Your task to perform on an android device: Search for "amazon basics triple a" on amazon, select the first entry, and add it to the cart. Image 0: 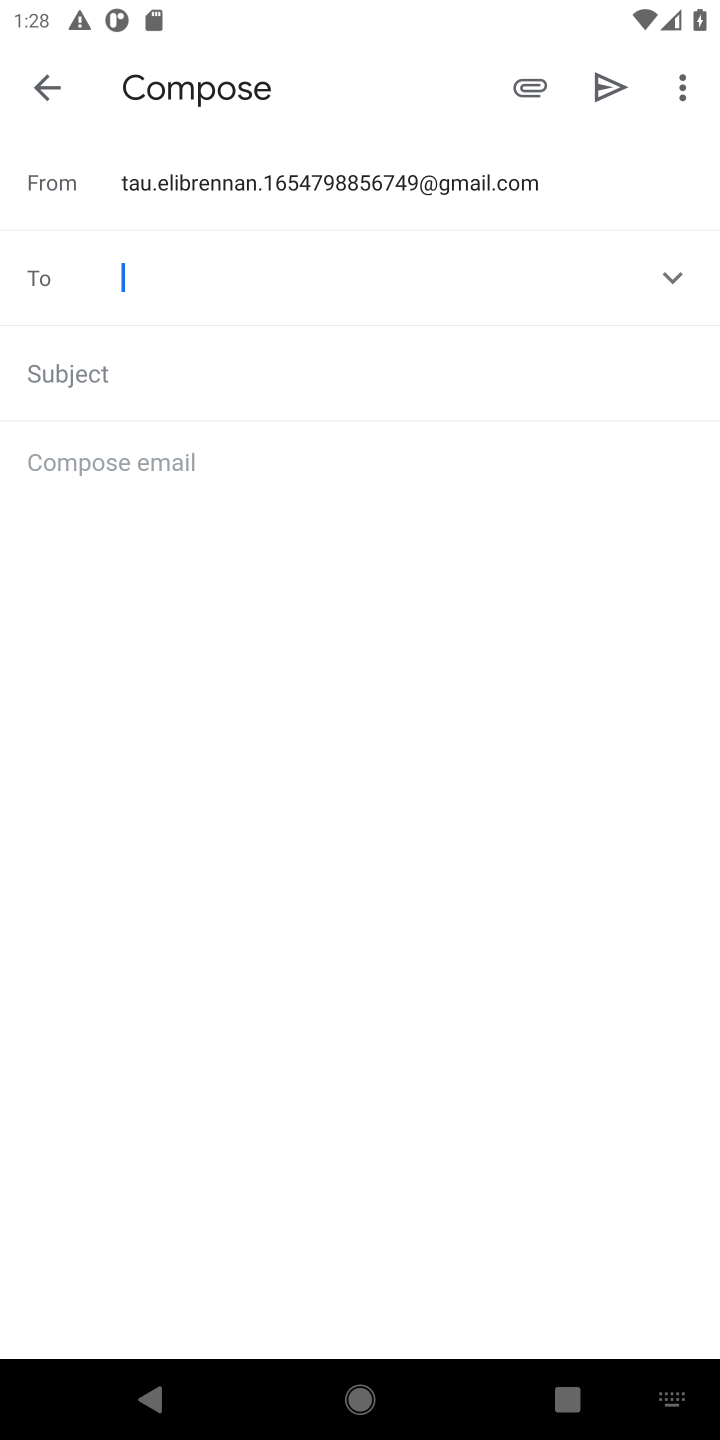
Step 0: press home button
Your task to perform on an android device: Search for "amazon basics triple a" on amazon, select the first entry, and add it to the cart. Image 1: 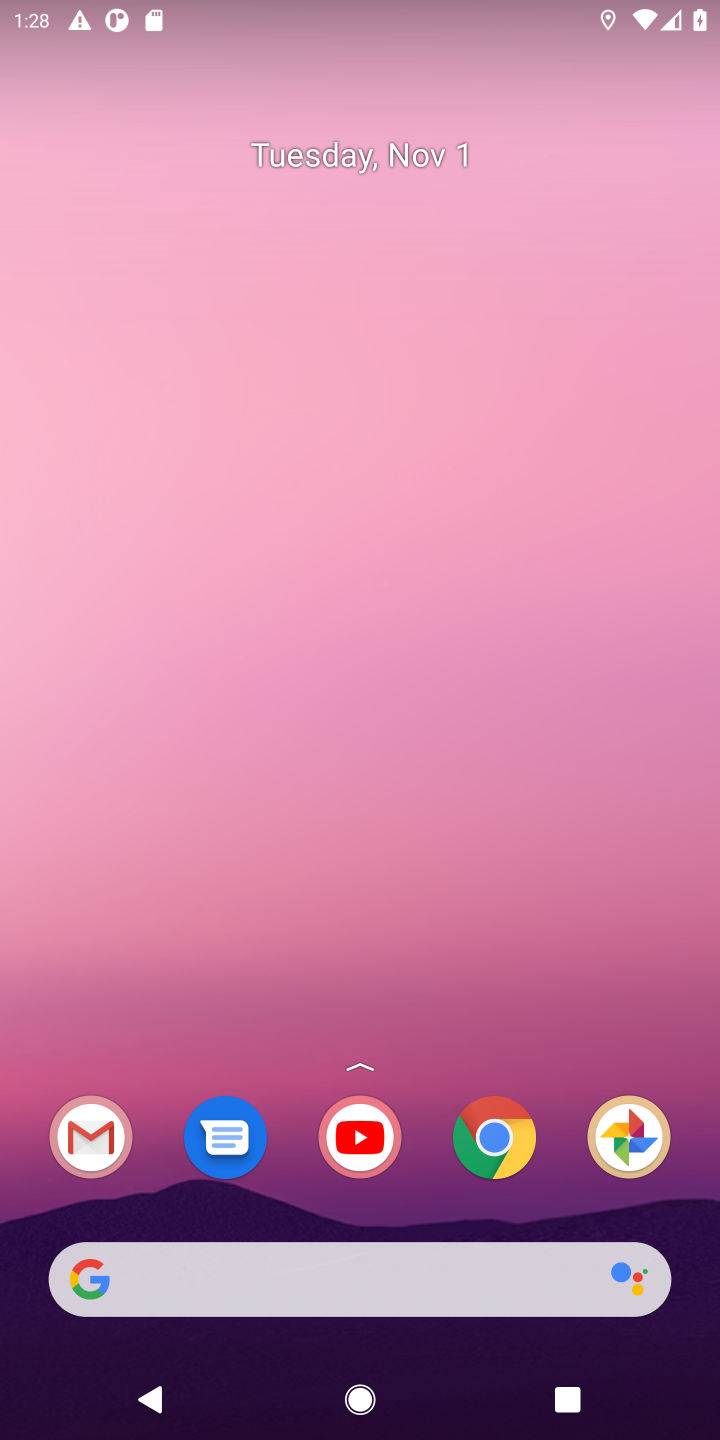
Step 1: drag from (394, 512) to (680, 7)
Your task to perform on an android device: Search for "amazon basics triple a" on amazon, select the first entry, and add it to the cart. Image 2: 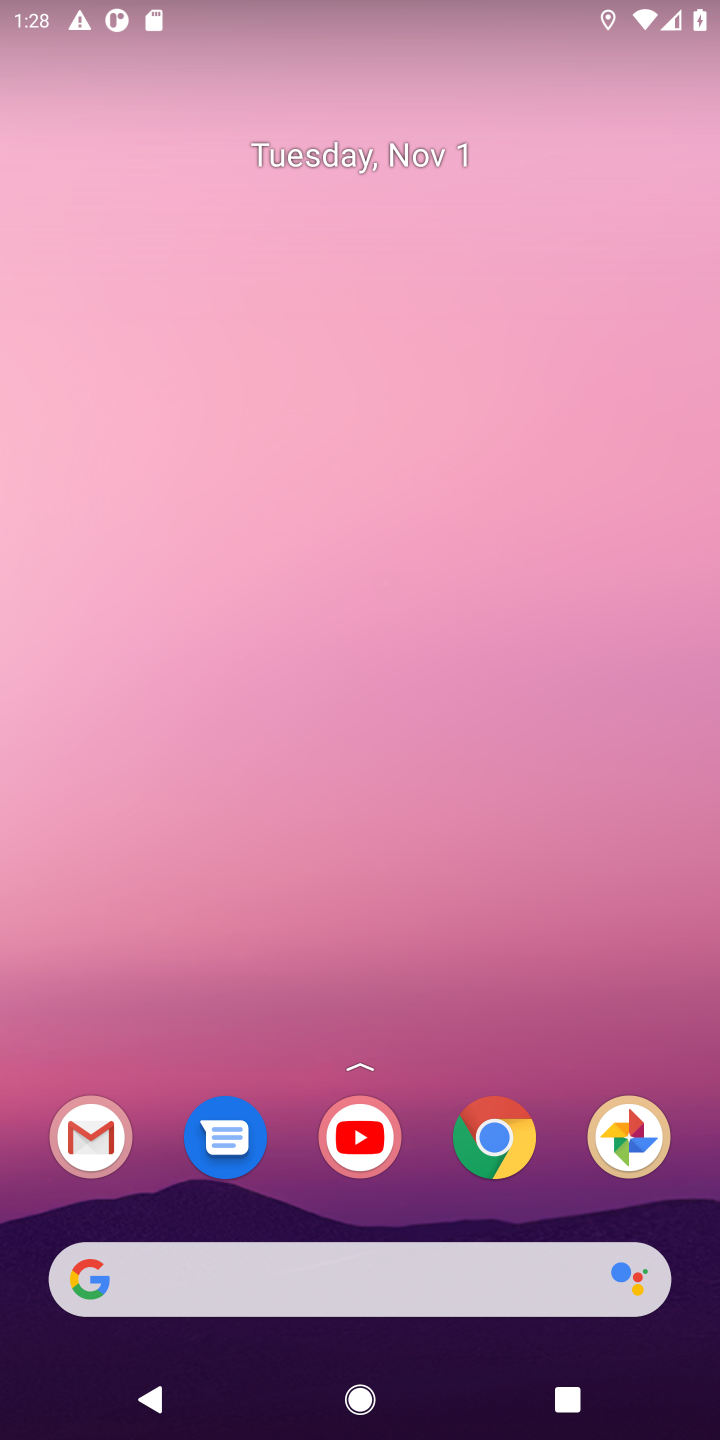
Step 2: drag from (359, 1302) to (381, 124)
Your task to perform on an android device: Search for "amazon basics triple a" on amazon, select the first entry, and add it to the cart. Image 3: 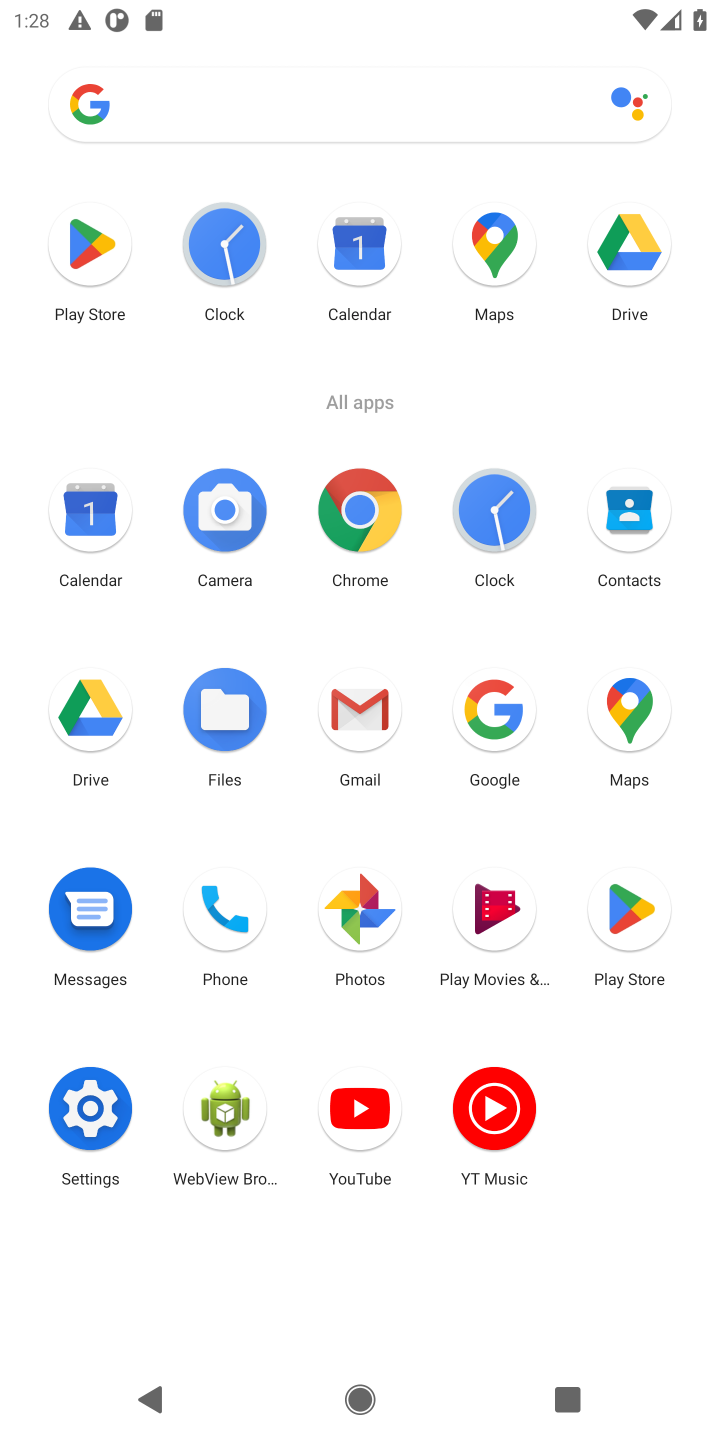
Step 3: click (373, 522)
Your task to perform on an android device: Search for "amazon basics triple a" on amazon, select the first entry, and add it to the cart. Image 4: 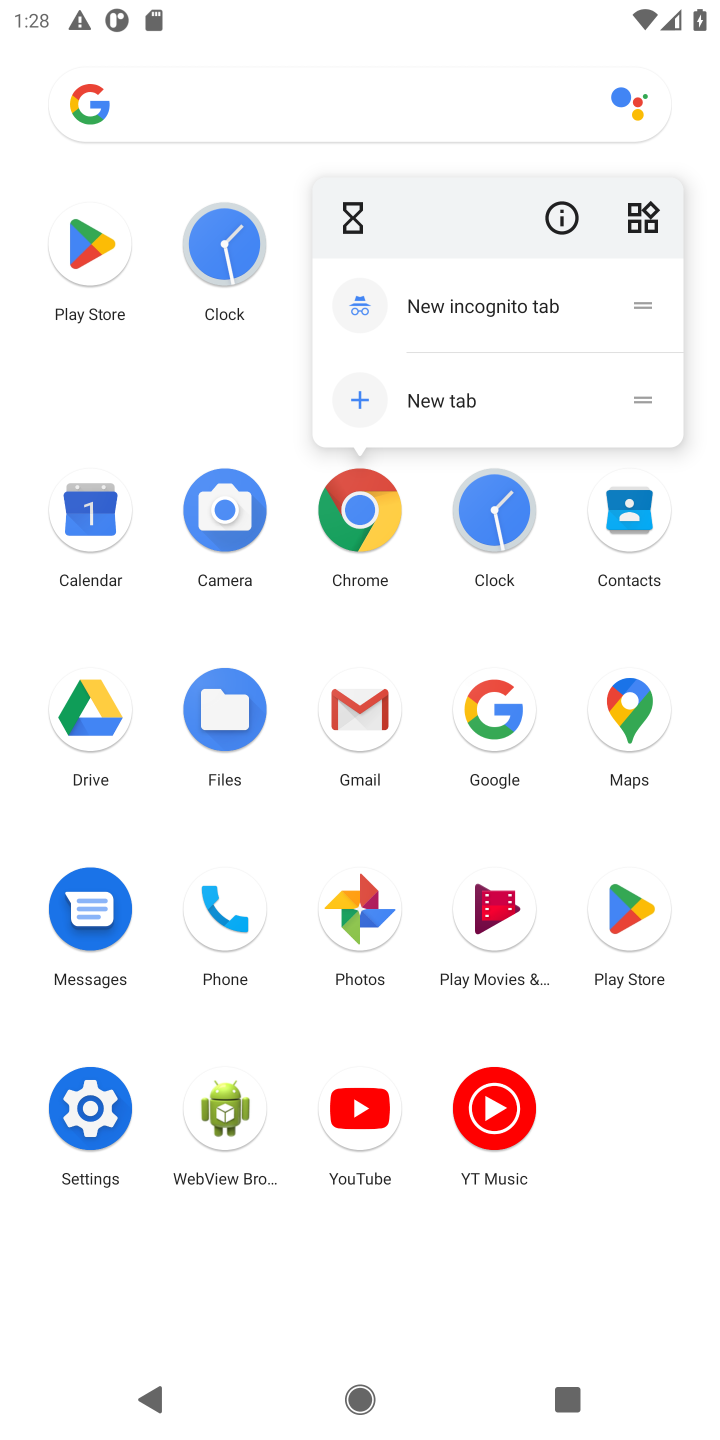
Step 4: click (373, 522)
Your task to perform on an android device: Search for "amazon basics triple a" on amazon, select the first entry, and add it to the cart. Image 5: 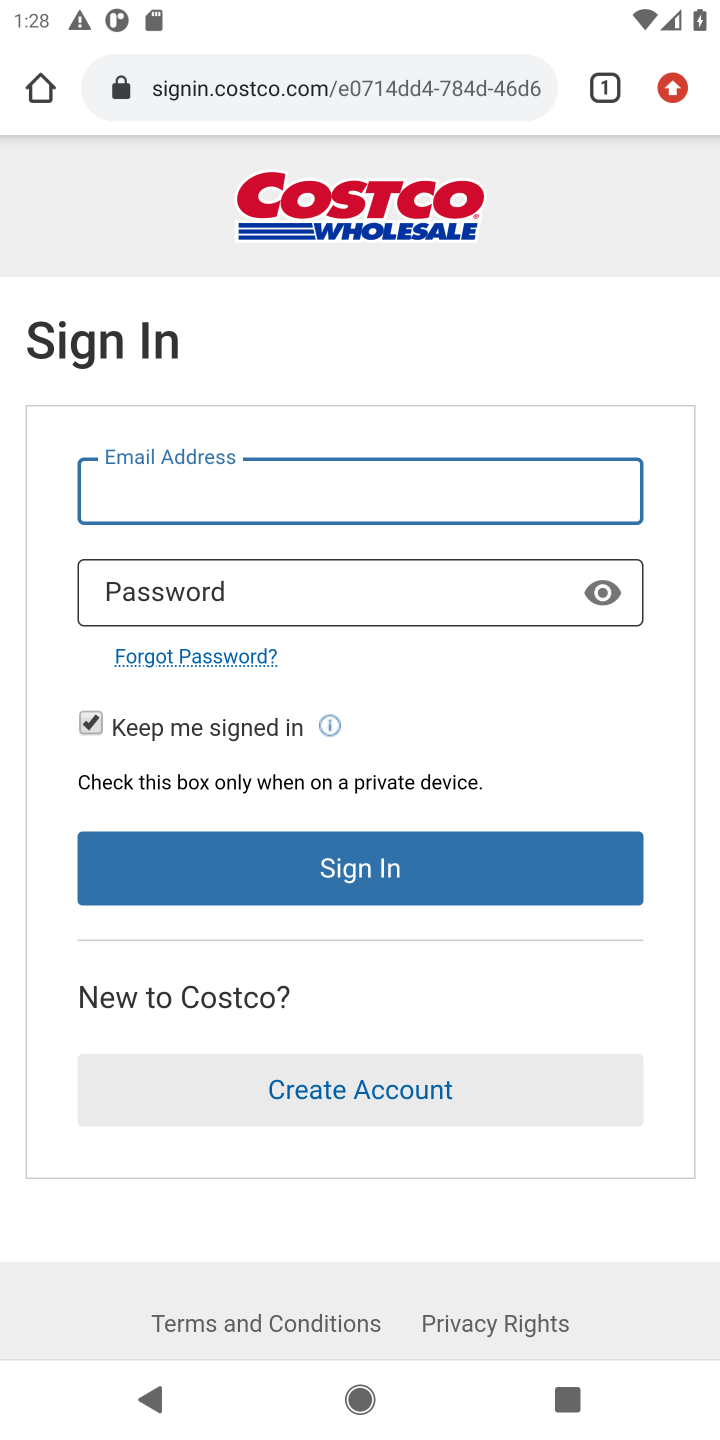
Step 5: click (261, 87)
Your task to perform on an android device: Search for "amazon basics triple a" on amazon, select the first entry, and add it to the cart. Image 6: 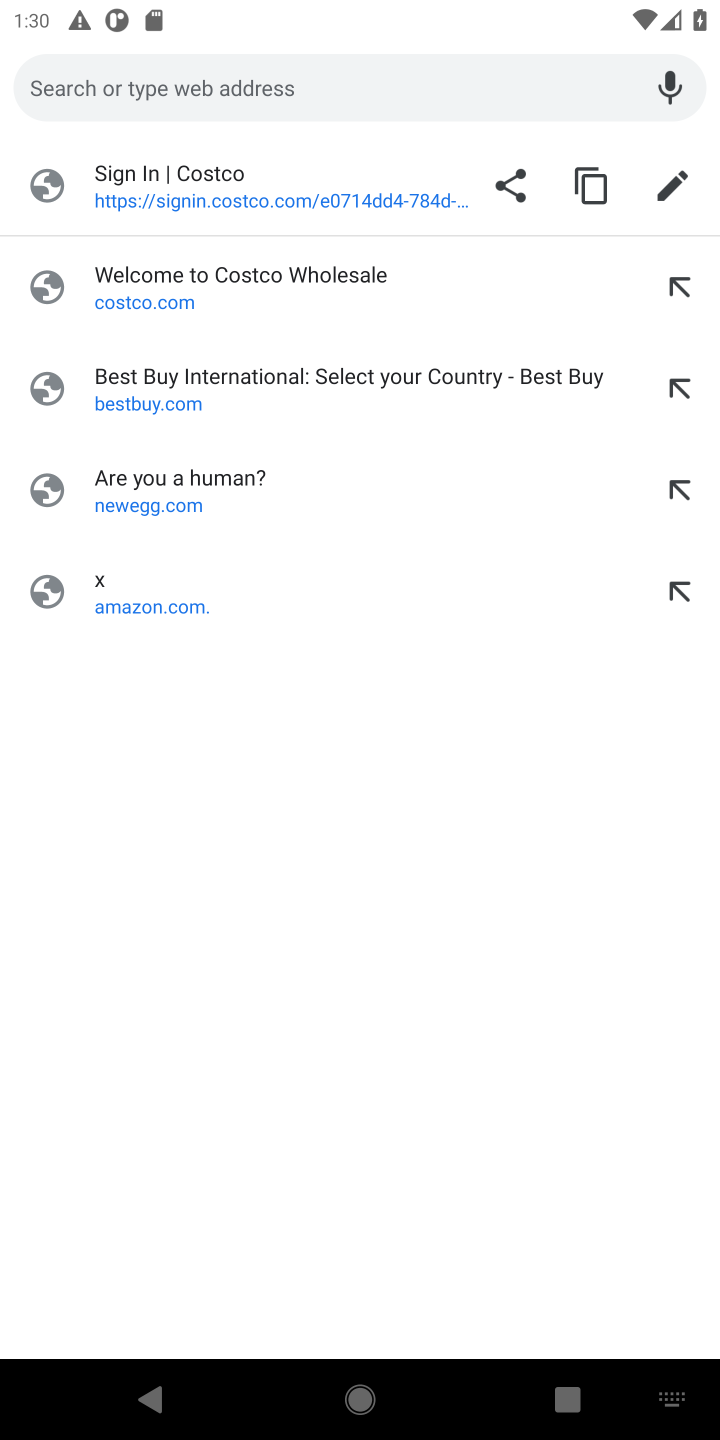
Step 6: type "amazon"
Your task to perform on an android device: Search for "amazon basics triple a" on amazon, select the first entry, and add it to the cart. Image 7: 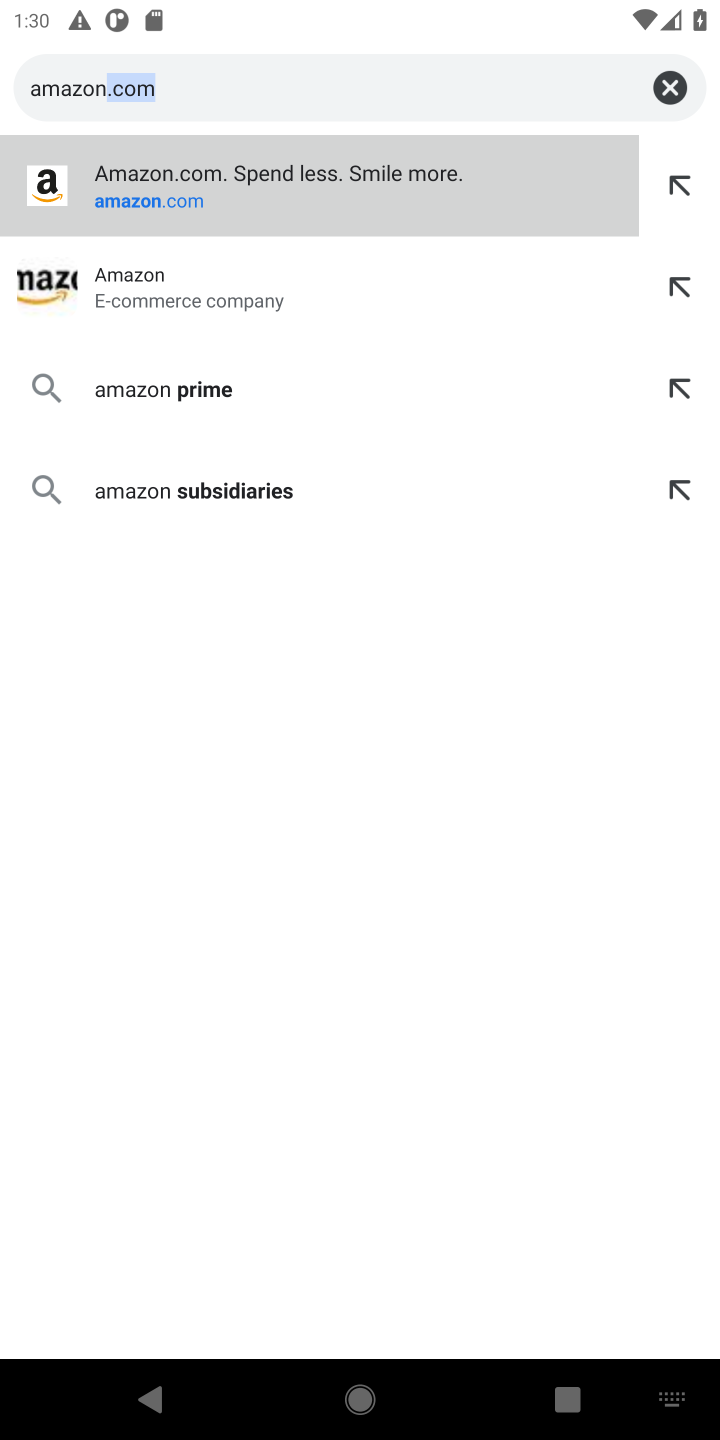
Step 7: press enter
Your task to perform on an android device: Search for "amazon basics triple a" on amazon, select the first entry, and add it to the cart. Image 8: 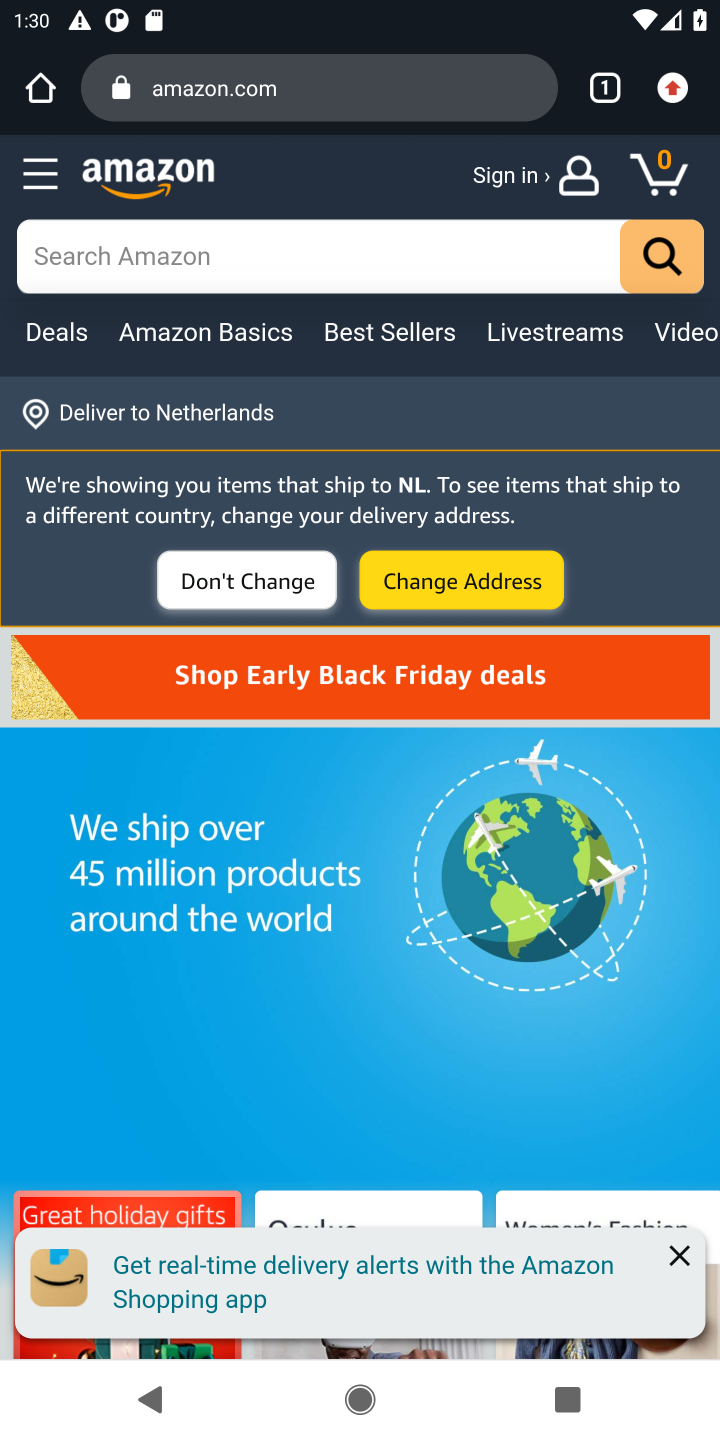
Step 8: click (260, 266)
Your task to perform on an android device: Search for "amazon basics triple a" on amazon, select the first entry, and add it to the cart. Image 9: 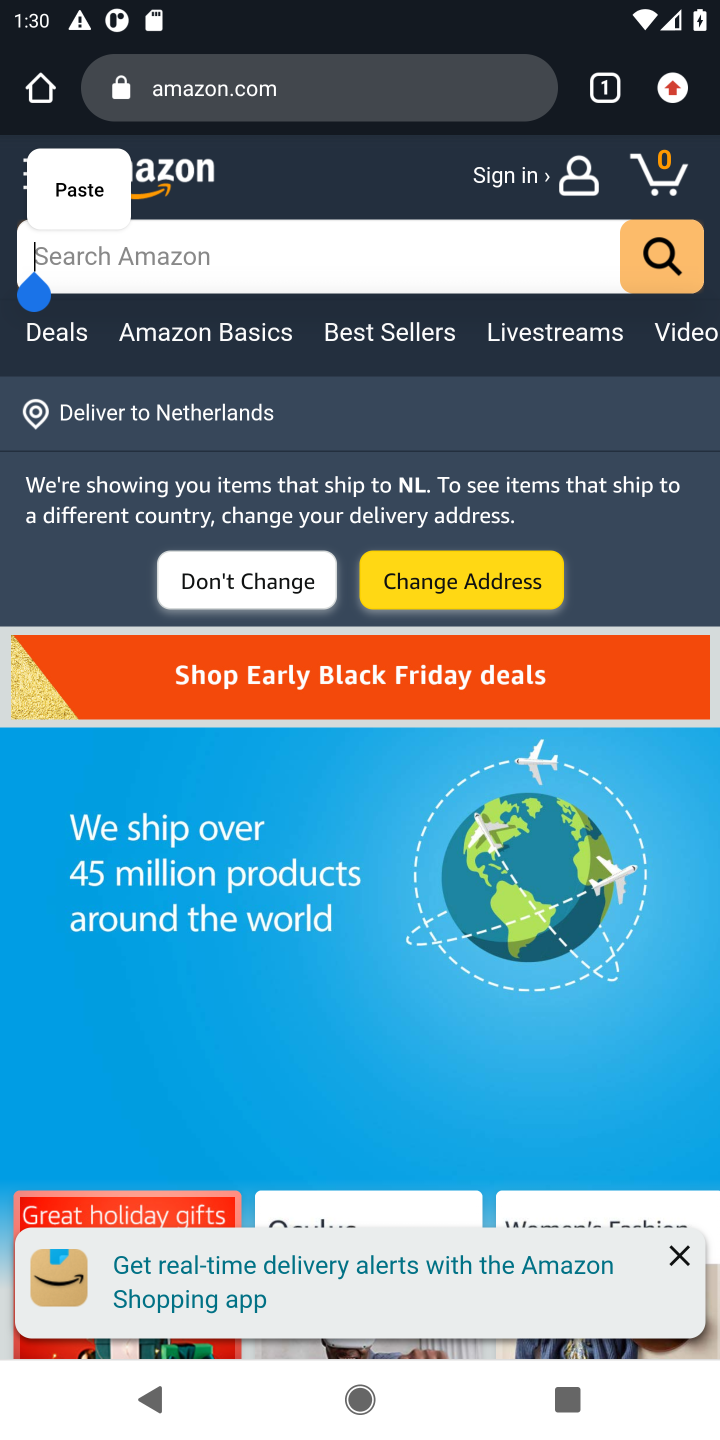
Step 9: type "amazon basics triple a"
Your task to perform on an android device: Search for "amazon basics triple a" on amazon, select the first entry, and add it to the cart. Image 10: 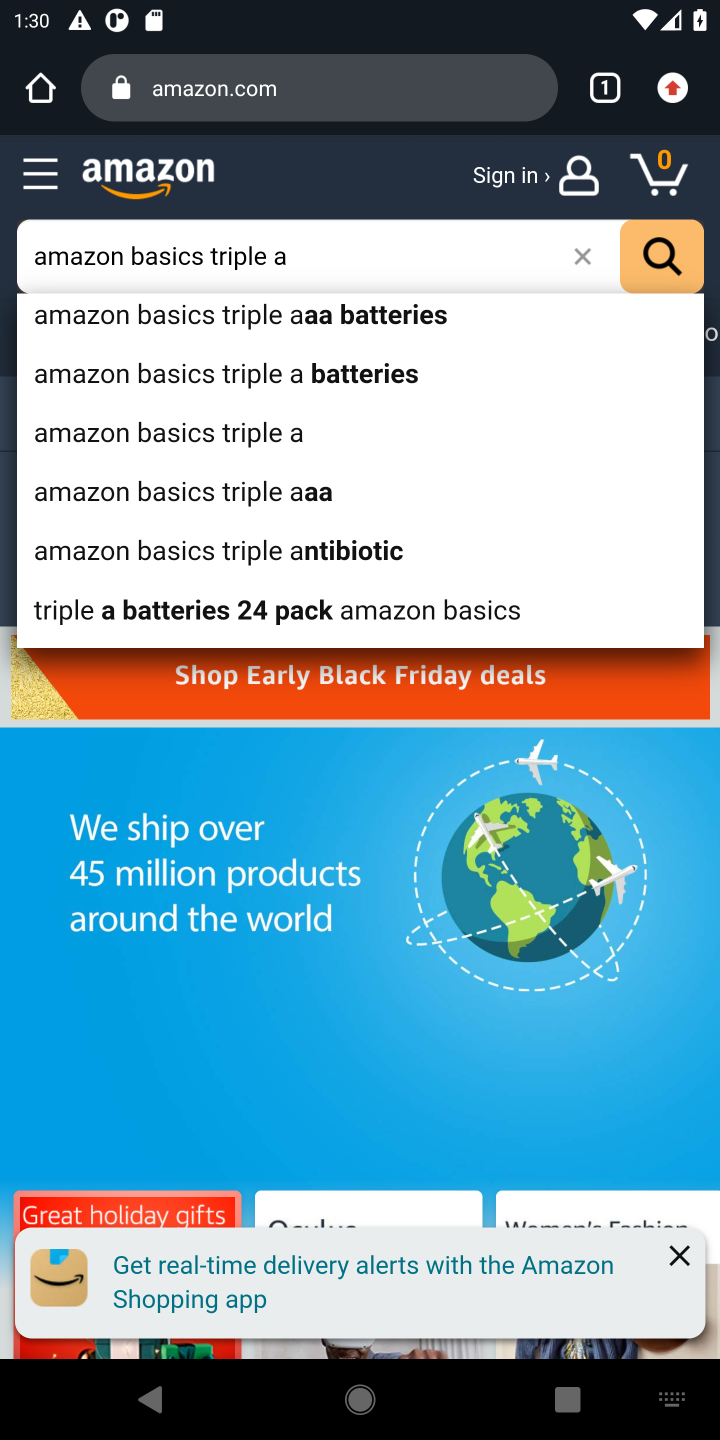
Step 10: press enter
Your task to perform on an android device: Search for "amazon basics triple a" on amazon, select the first entry, and add it to the cart. Image 11: 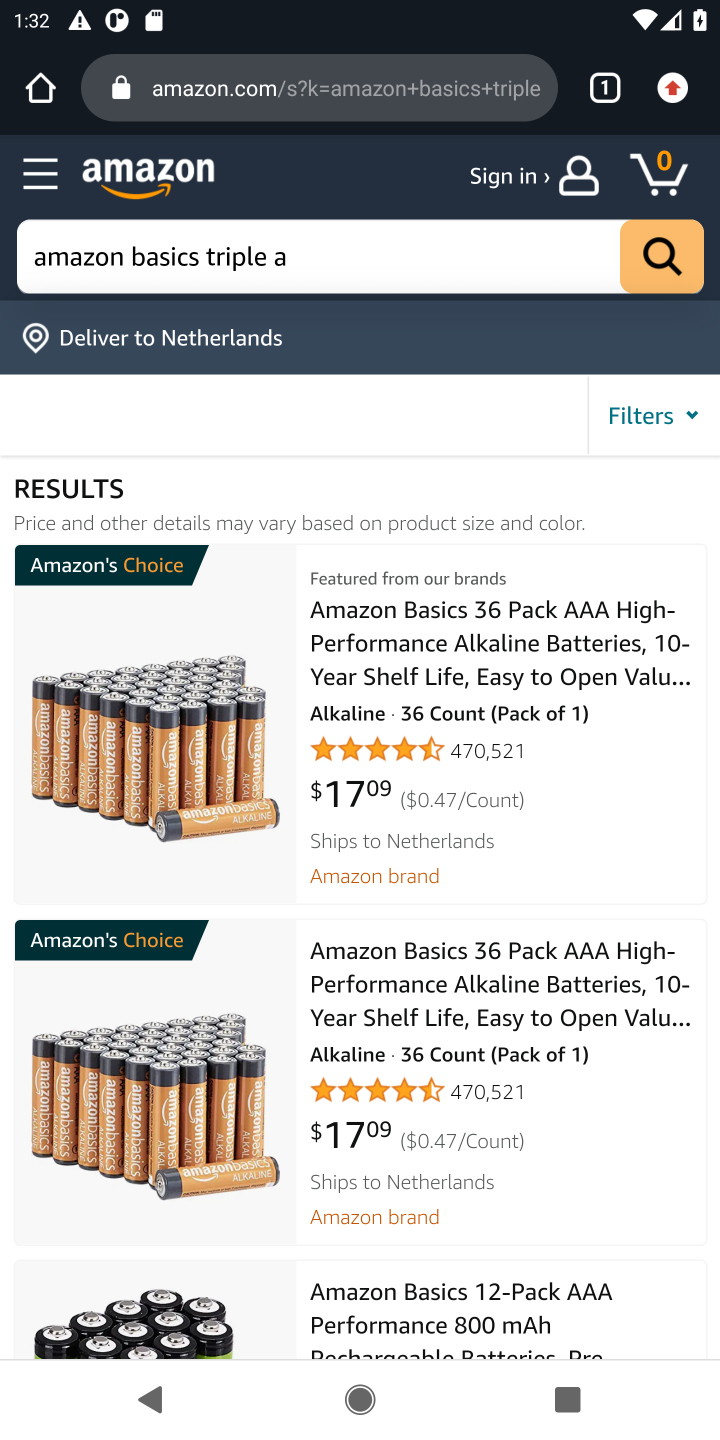
Step 11: click (108, 721)
Your task to perform on an android device: Search for "amazon basics triple a" on amazon, select the first entry, and add it to the cart. Image 12: 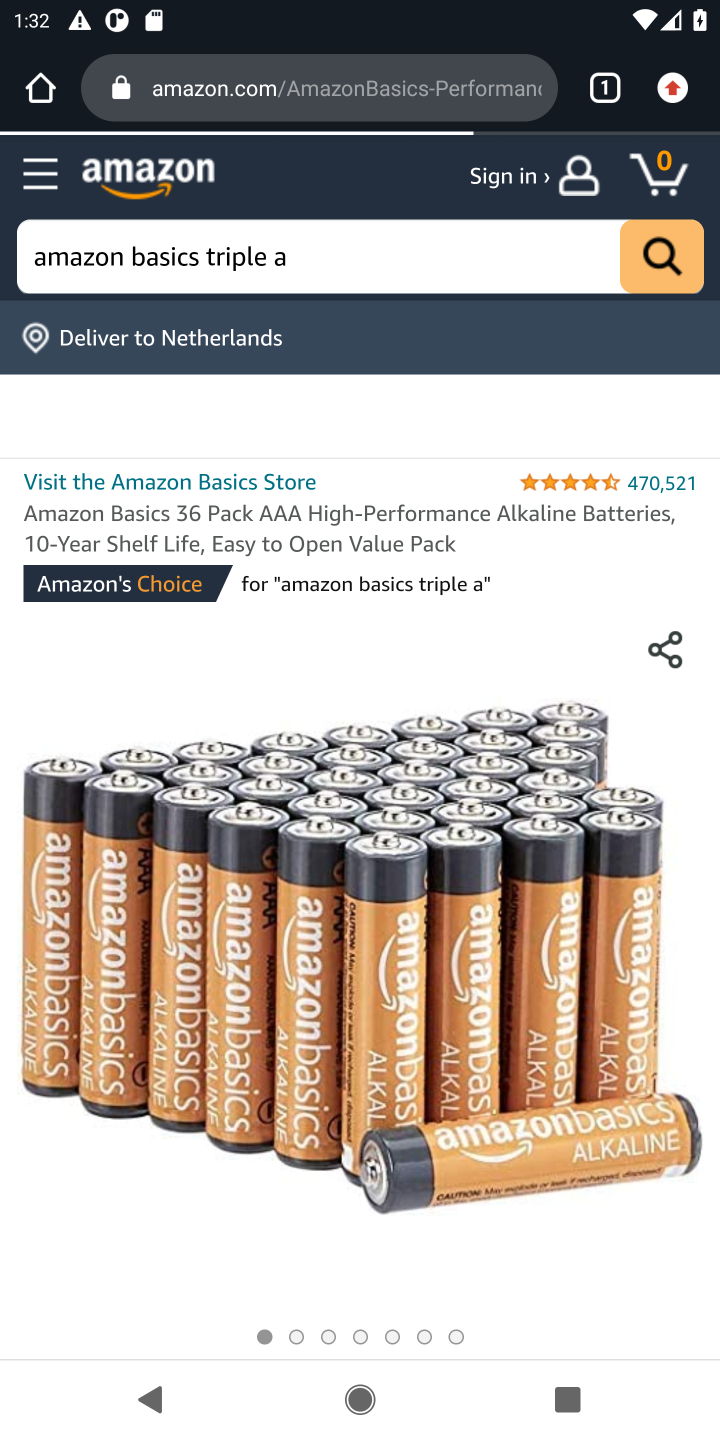
Step 12: drag from (318, 1068) to (413, 513)
Your task to perform on an android device: Search for "amazon basics triple a" on amazon, select the first entry, and add it to the cart. Image 13: 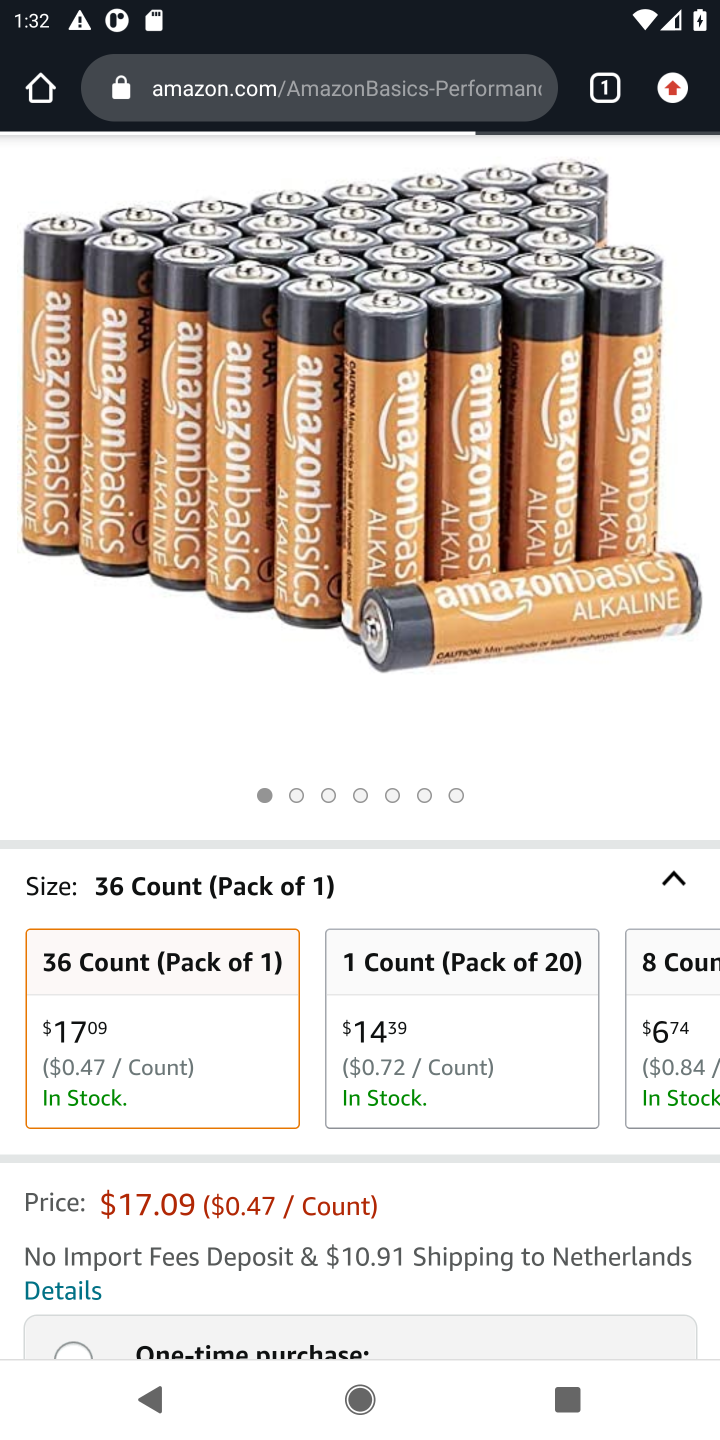
Step 13: drag from (343, 1062) to (420, 509)
Your task to perform on an android device: Search for "amazon basics triple a" on amazon, select the first entry, and add it to the cart. Image 14: 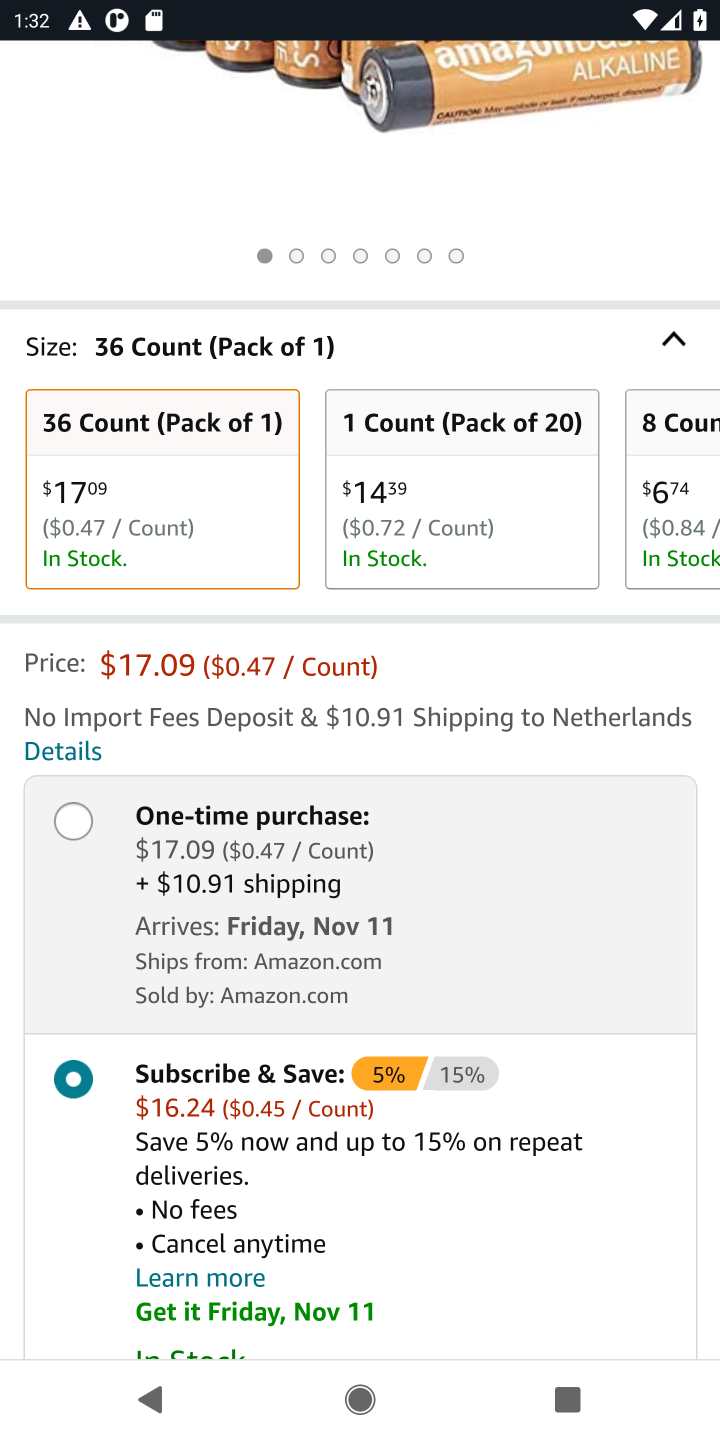
Step 14: drag from (292, 1009) to (459, 452)
Your task to perform on an android device: Search for "amazon basics triple a" on amazon, select the first entry, and add it to the cart. Image 15: 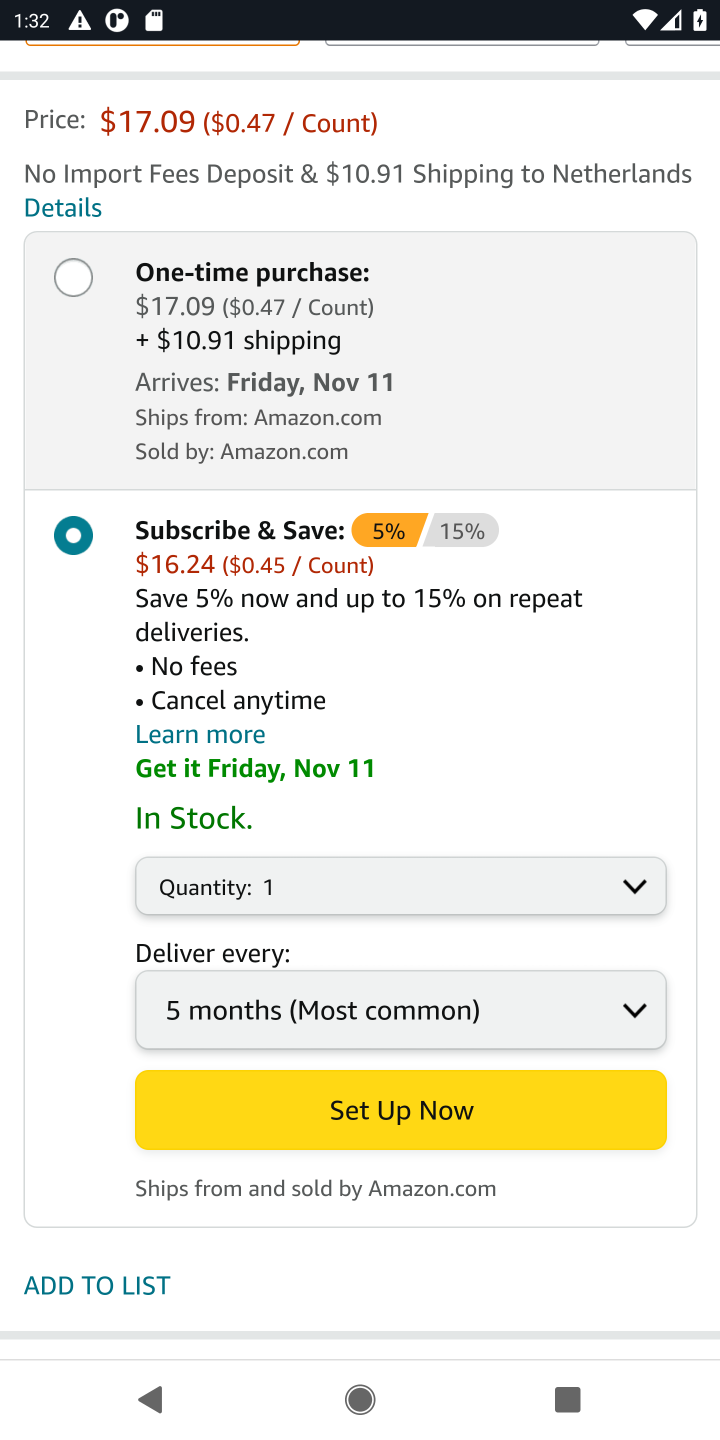
Step 15: drag from (507, 1058) to (492, 604)
Your task to perform on an android device: Search for "amazon basics triple a" on amazon, select the first entry, and add it to the cart. Image 16: 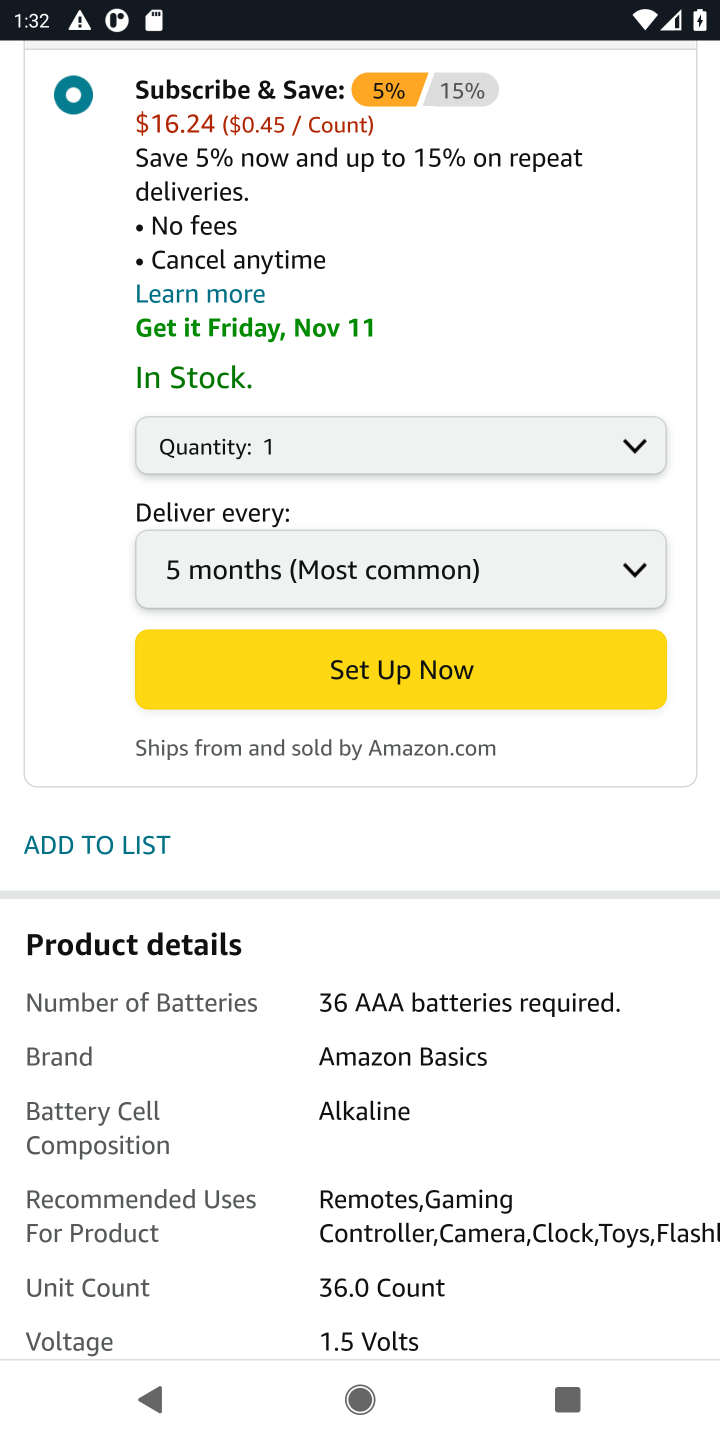
Step 16: click (477, 656)
Your task to perform on an android device: Search for "amazon basics triple a" on amazon, select the first entry, and add it to the cart. Image 17: 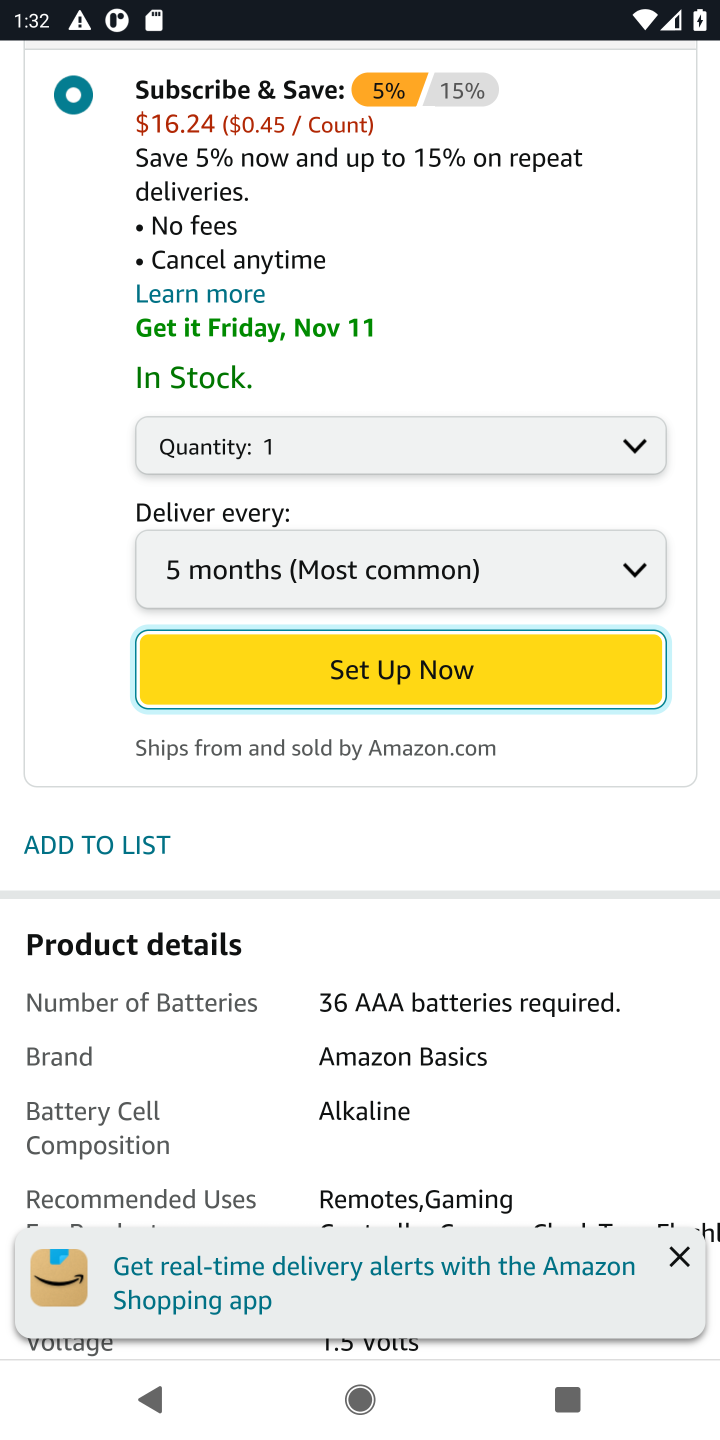
Step 17: click (445, 687)
Your task to perform on an android device: Search for "amazon basics triple a" on amazon, select the first entry, and add it to the cart. Image 18: 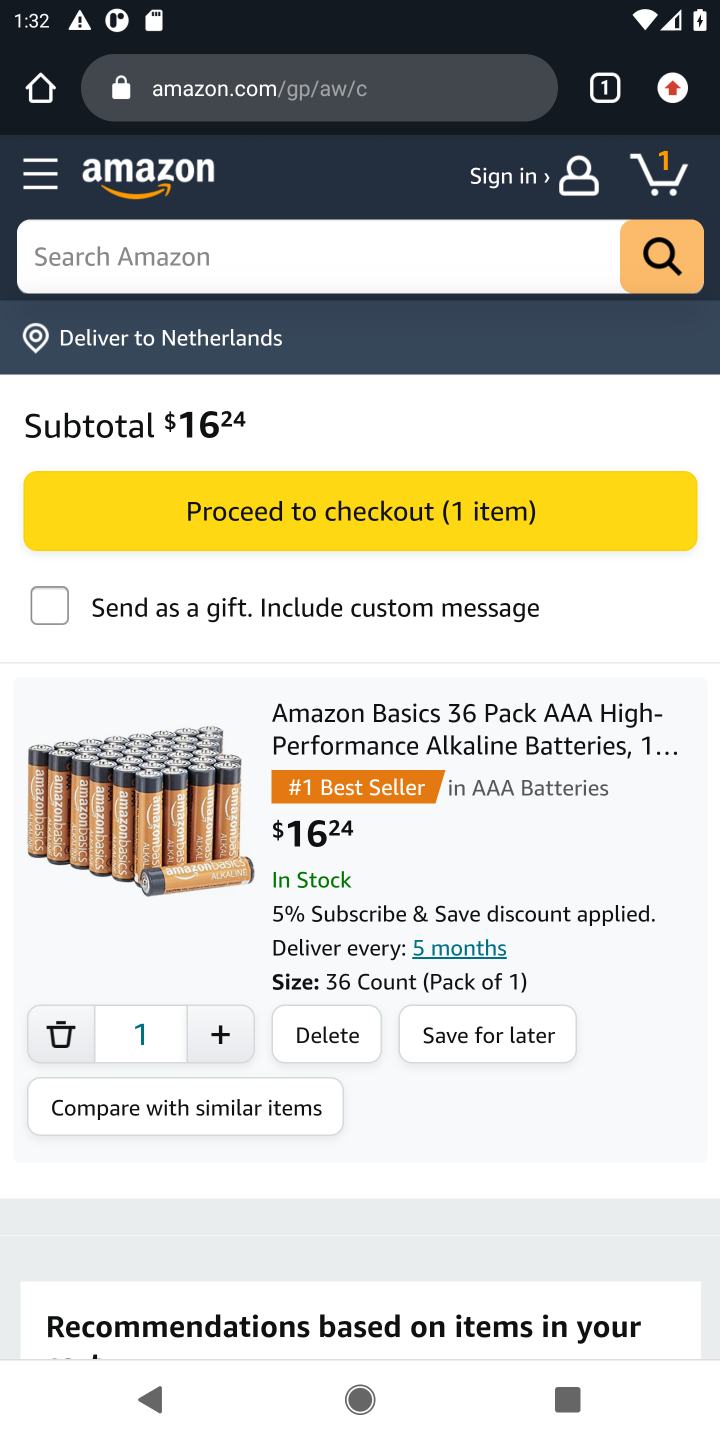
Step 18: click (432, 520)
Your task to perform on an android device: Search for "amazon basics triple a" on amazon, select the first entry, and add it to the cart. Image 19: 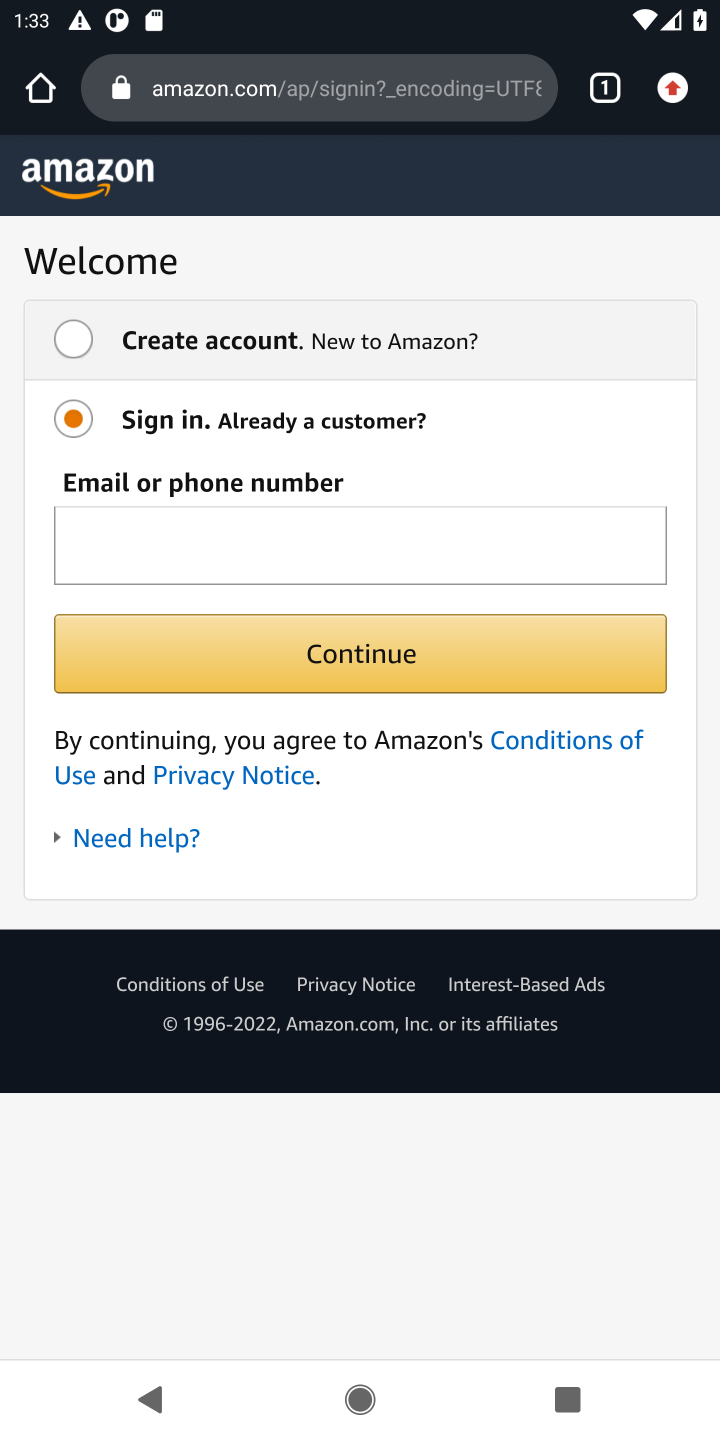
Step 19: task complete